Your task to perform on an android device: Show me popular games on the Play Store Image 0: 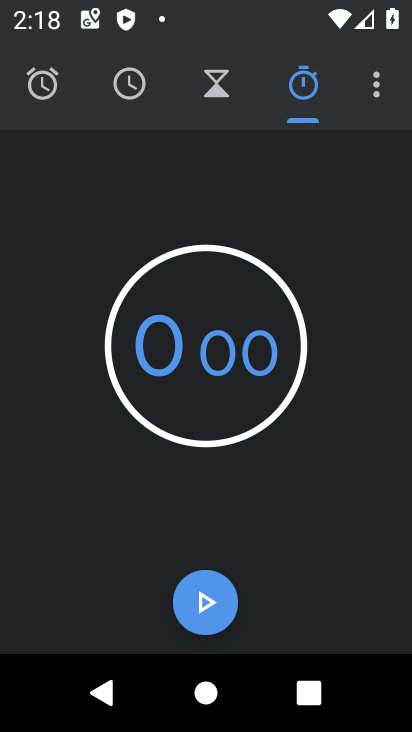
Step 0: press back button
Your task to perform on an android device: Show me popular games on the Play Store Image 1: 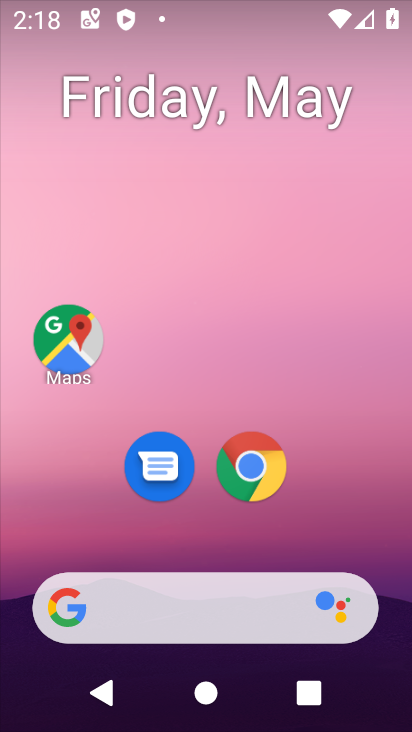
Step 1: drag from (186, 554) to (311, 0)
Your task to perform on an android device: Show me popular games on the Play Store Image 2: 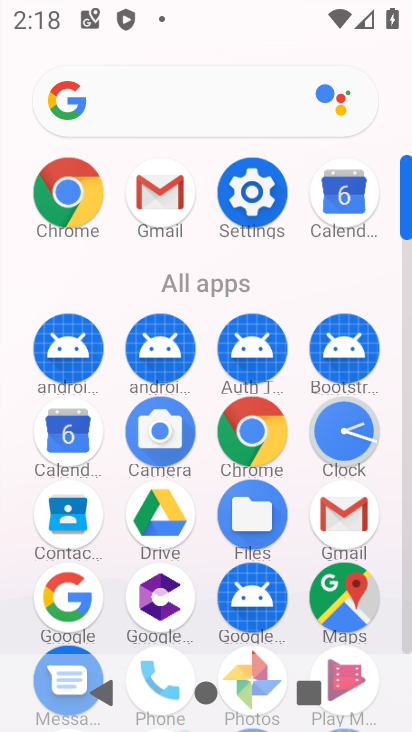
Step 2: drag from (156, 590) to (298, 147)
Your task to perform on an android device: Show me popular games on the Play Store Image 3: 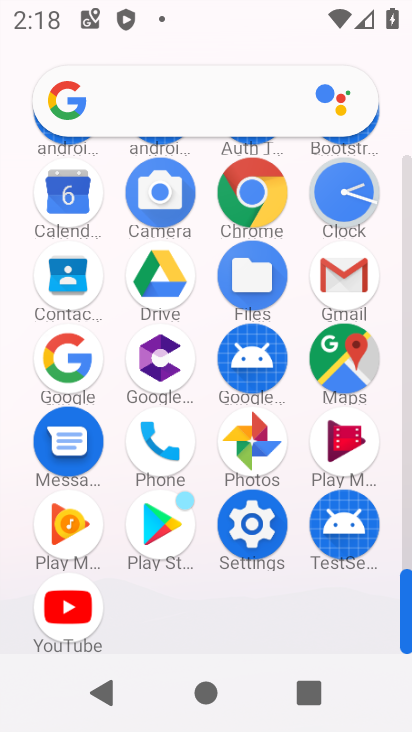
Step 3: click (163, 532)
Your task to perform on an android device: Show me popular games on the Play Store Image 4: 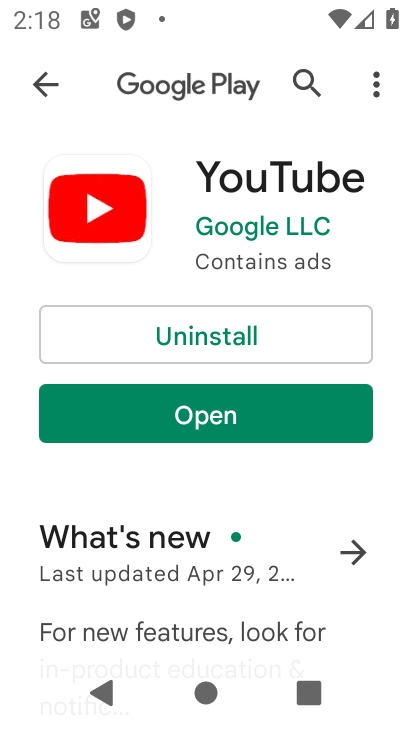
Step 4: click (35, 84)
Your task to perform on an android device: Show me popular games on the Play Store Image 5: 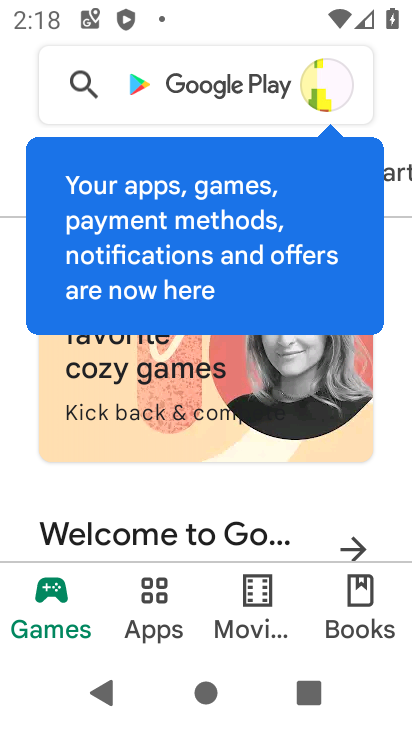
Step 5: click (66, 623)
Your task to perform on an android device: Show me popular games on the Play Store Image 6: 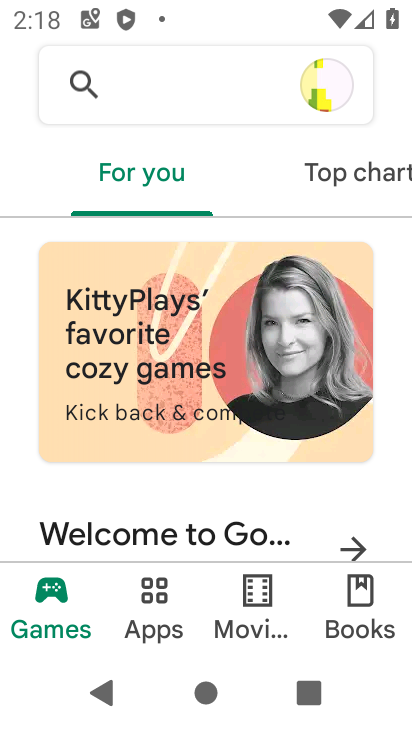
Step 6: drag from (177, 517) to (293, 68)
Your task to perform on an android device: Show me popular games on the Play Store Image 7: 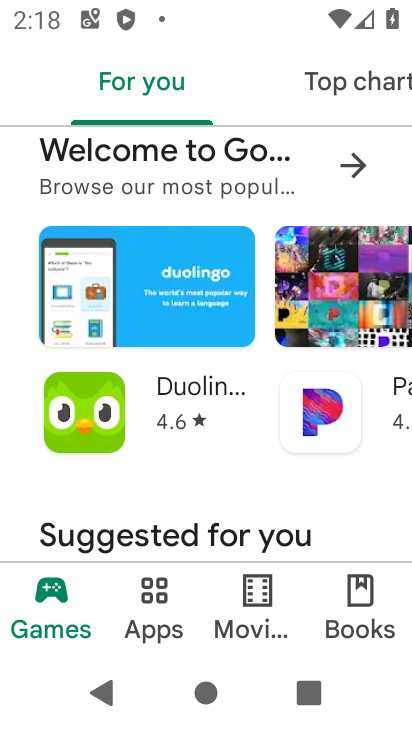
Step 7: drag from (178, 531) to (293, 73)
Your task to perform on an android device: Show me popular games on the Play Store Image 8: 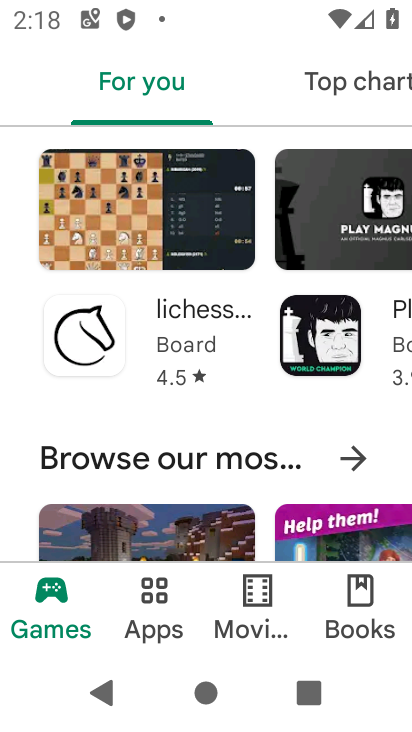
Step 8: drag from (235, 248) to (166, 569)
Your task to perform on an android device: Show me popular games on the Play Store Image 9: 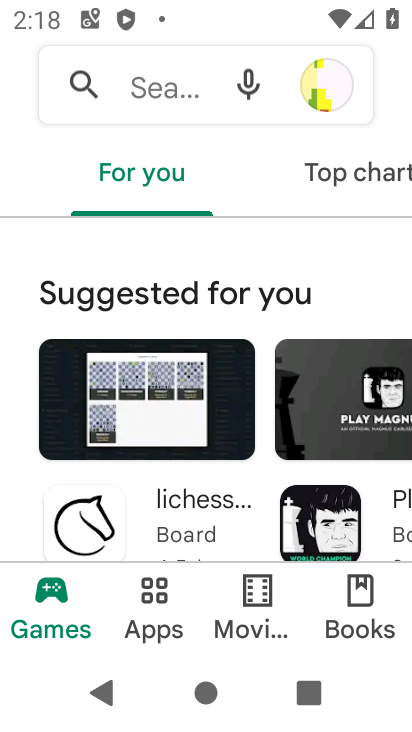
Step 9: drag from (153, 493) to (246, 84)
Your task to perform on an android device: Show me popular games on the Play Store Image 10: 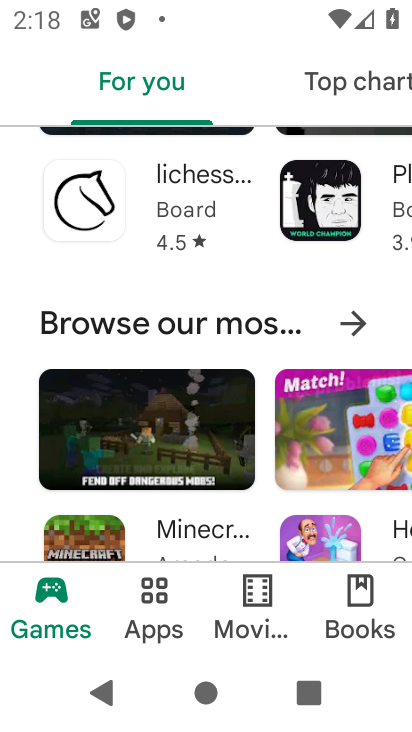
Step 10: drag from (218, 497) to (278, 37)
Your task to perform on an android device: Show me popular games on the Play Store Image 11: 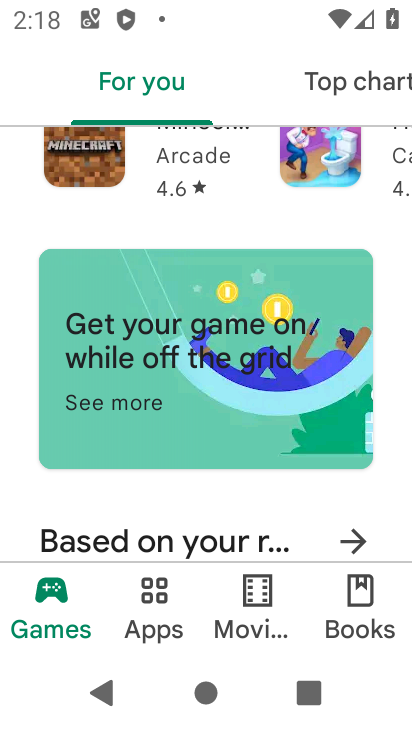
Step 11: drag from (156, 510) to (199, 89)
Your task to perform on an android device: Show me popular games on the Play Store Image 12: 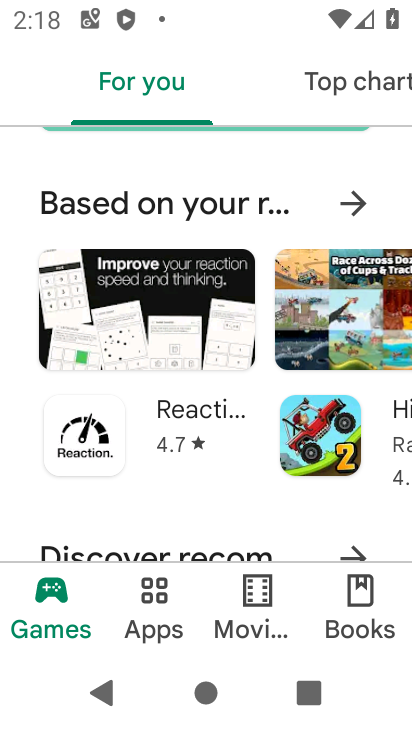
Step 12: drag from (182, 473) to (262, 130)
Your task to perform on an android device: Show me popular games on the Play Store Image 13: 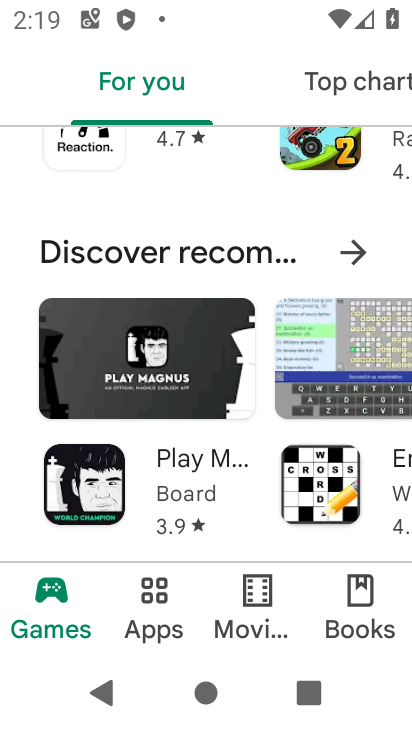
Step 13: drag from (155, 516) to (309, 61)
Your task to perform on an android device: Show me popular games on the Play Store Image 14: 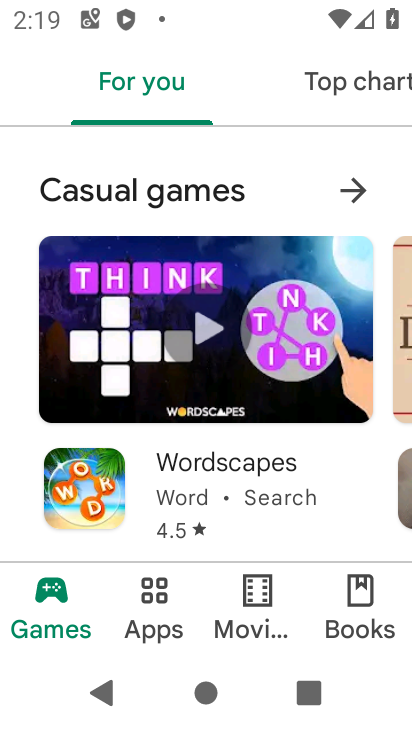
Step 14: drag from (221, 497) to (374, 3)
Your task to perform on an android device: Show me popular games on the Play Store Image 15: 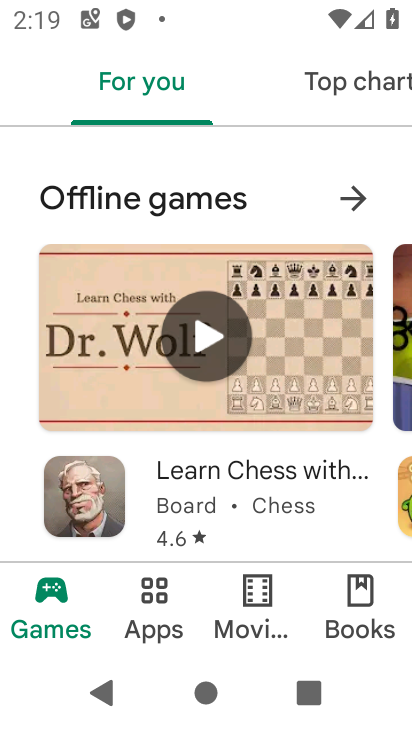
Step 15: drag from (242, 462) to (329, 73)
Your task to perform on an android device: Show me popular games on the Play Store Image 16: 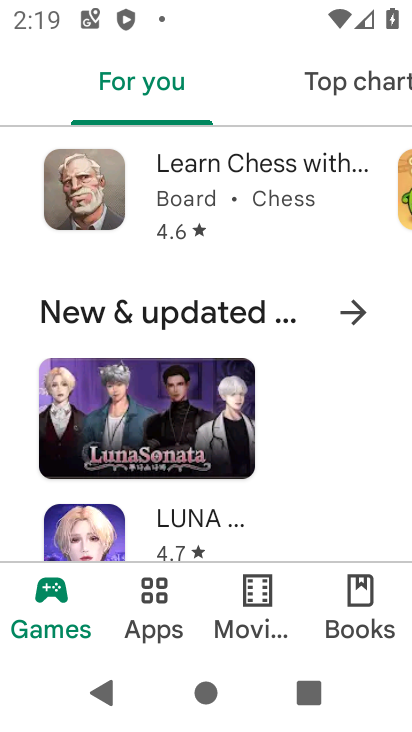
Step 16: drag from (280, 244) to (153, 581)
Your task to perform on an android device: Show me popular games on the Play Store Image 17: 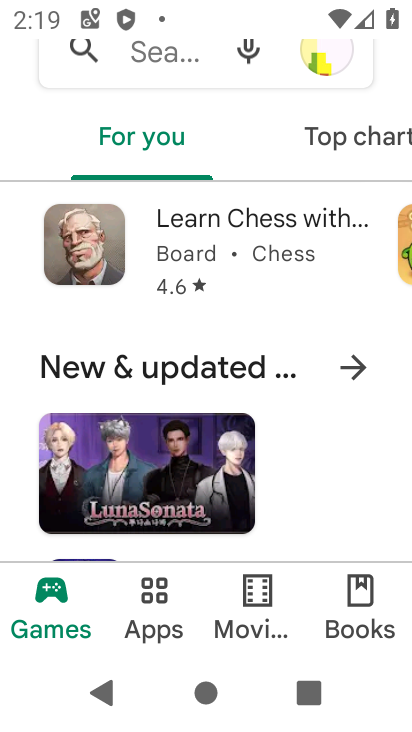
Step 17: drag from (217, 240) to (167, 611)
Your task to perform on an android device: Show me popular games on the Play Store Image 18: 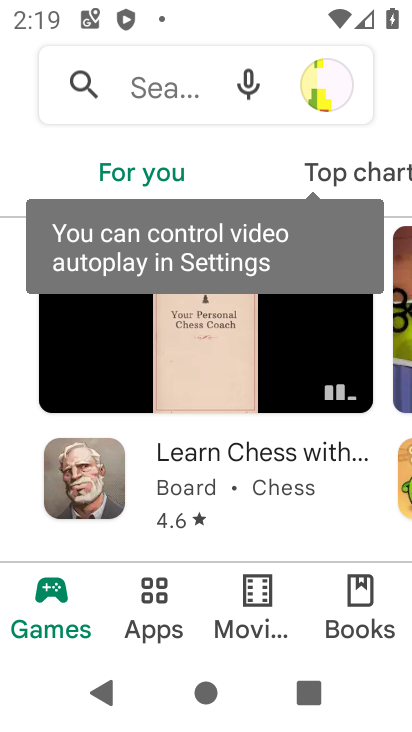
Step 18: drag from (205, 365) to (130, 656)
Your task to perform on an android device: Show me popular games on the Play Store Image 19: 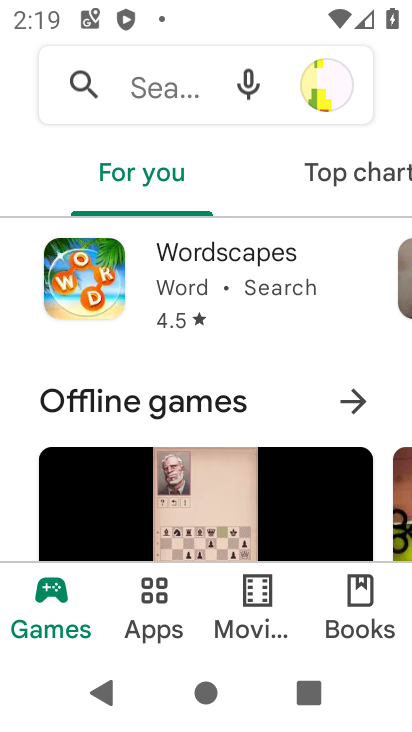
Step 19: drag from (189, 346) to (131, 626)
Your task to perform on an android device: Show me popular games on the Play Store Image 20: 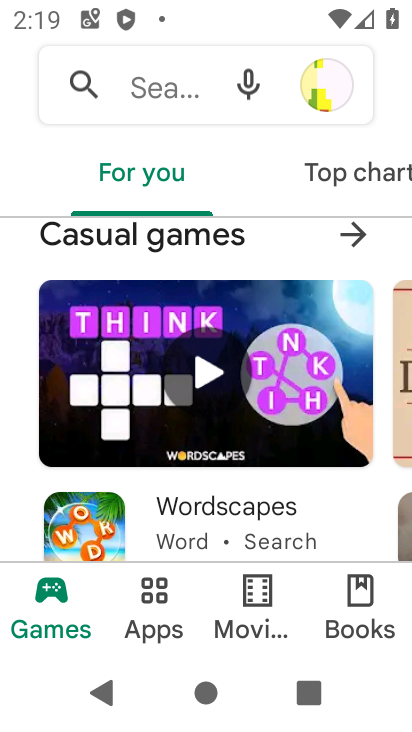
Step 20: drag from (187, 295) to (96, 571)
Your task to perform on an android device: Show me popular games on the Play Store Image 21: 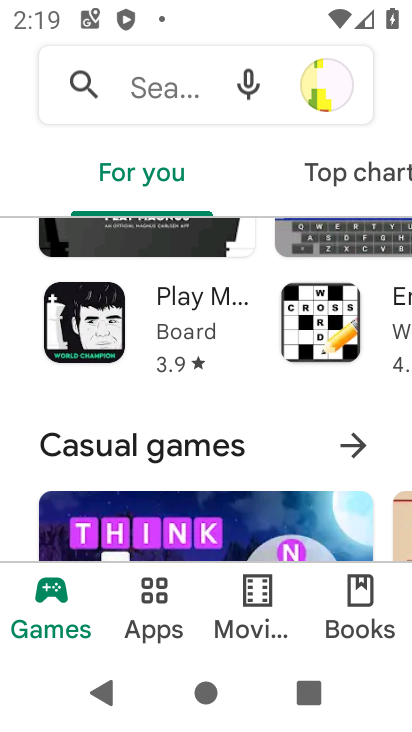
Step 21: drag from (205, 249) to (116, 597)
Your task to perform on an android device: Show me popular games on the Play Store Image 22: 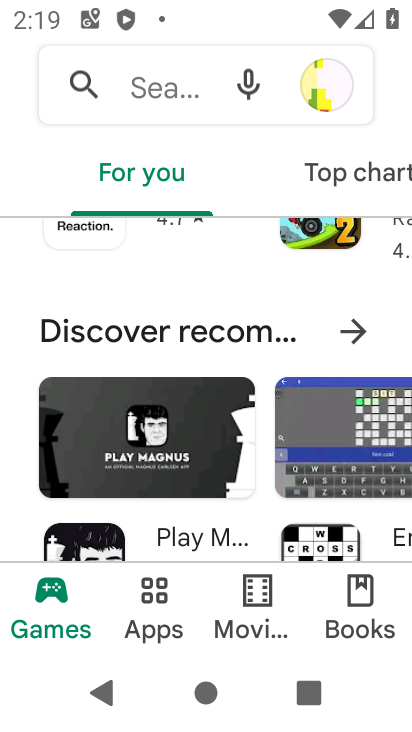
Step 22: drag from (148, 270) to (98, 534)
Your task to perform on an android device: Show me popular games on the Play Store Image 23: 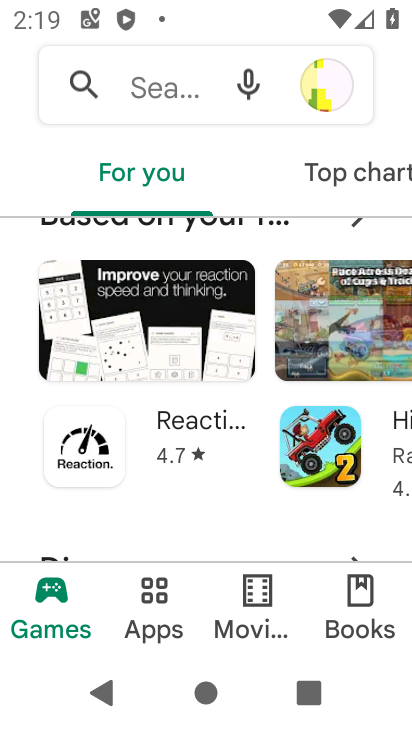
Step 23: drag from (150, 239) to (75, 561)
Your task to perform on an android device: Show me popular games on the Play Store Image 24: 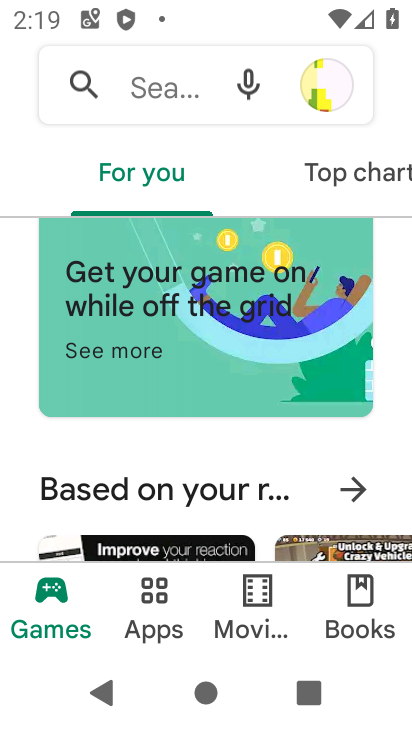
Step 24: drag from (138, 236) to (75, 584)
Your task to perform on an android device: Show me popular games on the Play Store Image 25: 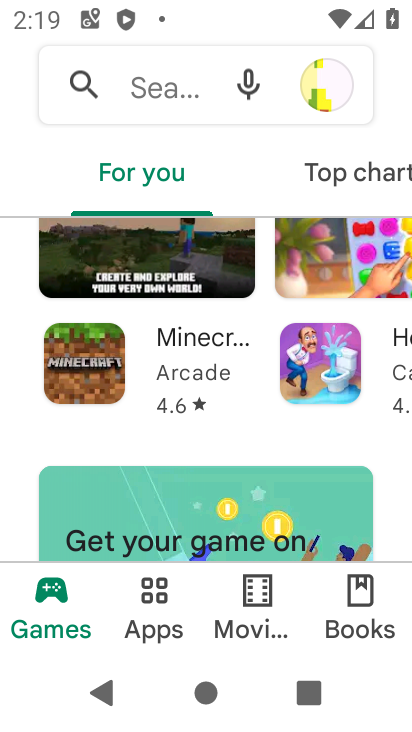
Step 25: drag from (219, 232) to (106, 610)
Your task to perform on an android device: Show me popular games on the Play Store Image 26: 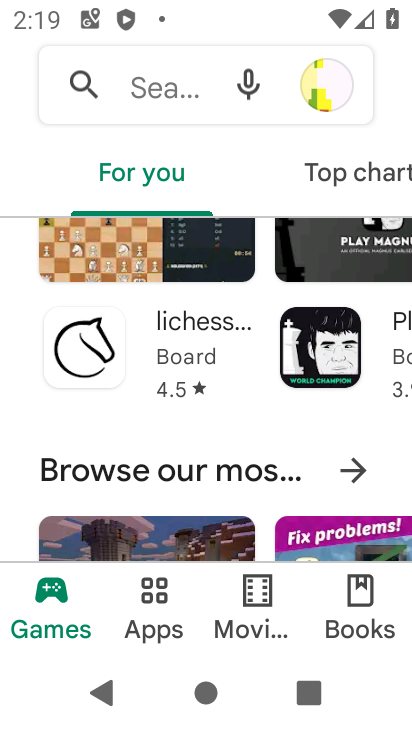
Step 26: drag from (164, 268) to (87, 559)
Your task to perform on an android device: Show me popular games on the Play Store Image 27: 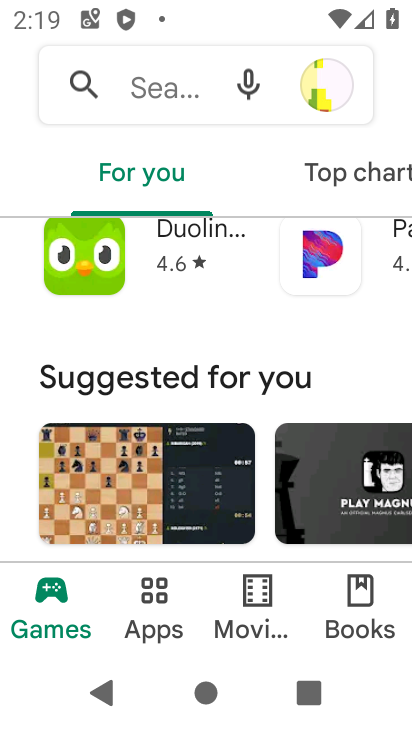
Step 27: drag from (201, 295) to (144, 587)
Your task to perform on an android device: Show me popular games on the Play Store Image 28: 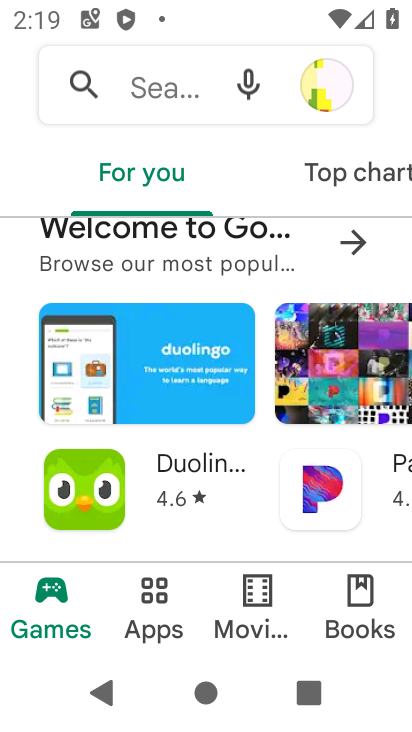
Step 28: drag from (168, 295) to (79, 637)
Your task to perform on an android device: Show me popular games on the Play Store Image 29: 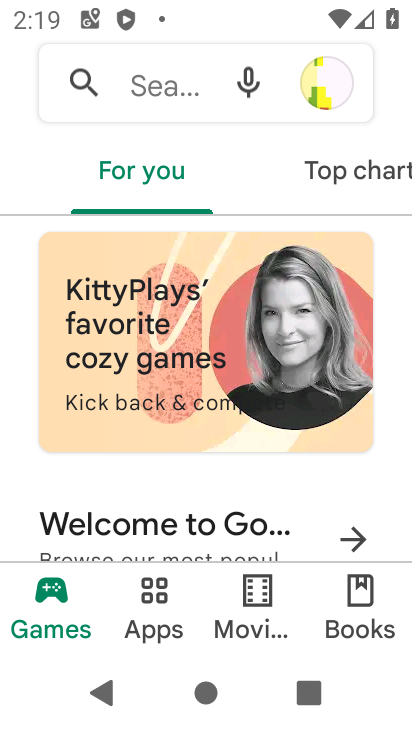
Step 29: drag from (178, 246) to (71, 596)
Your task to perform on an android device: Show me popular games on the Play Store Image 30: 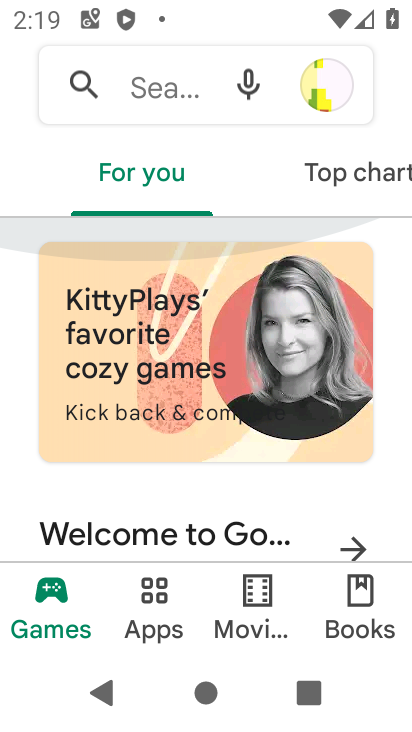
Step 30: drag from (126, 464) to (206, 109)
Your task to perform on an android device: Show me popular games on the Play Store Image 31: 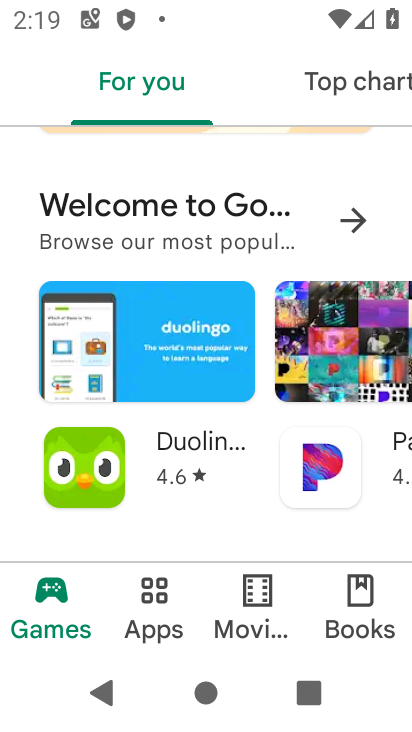
Step 31: drag from (207, 496) to (284, 65)
Your task to perform on an android device: Show me popular games on the Play Store Image 32: 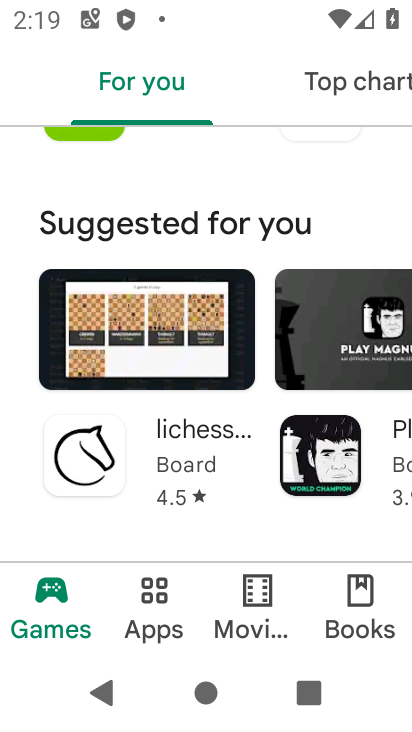
Step 32: drag from (203, 460) to (273, 111)
Your task to perform on an android device: Show me popular games on the Play Store Image 33: 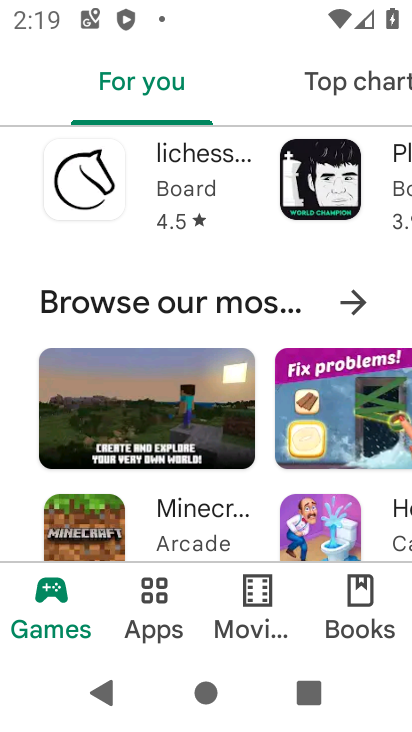
Step 33: click (195, 494)
Your task to perform on an android device: Show me popular games on the Play Store Image 34: 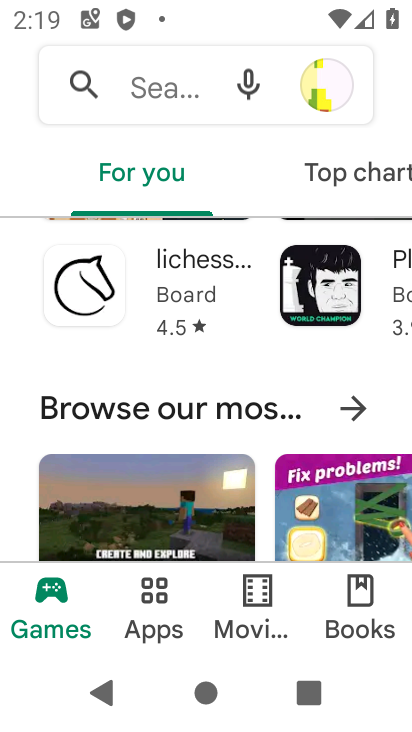
Step 34: click (253, 413)
Your task to perform on an android device: Show me popular games on the Play Store Image 35: 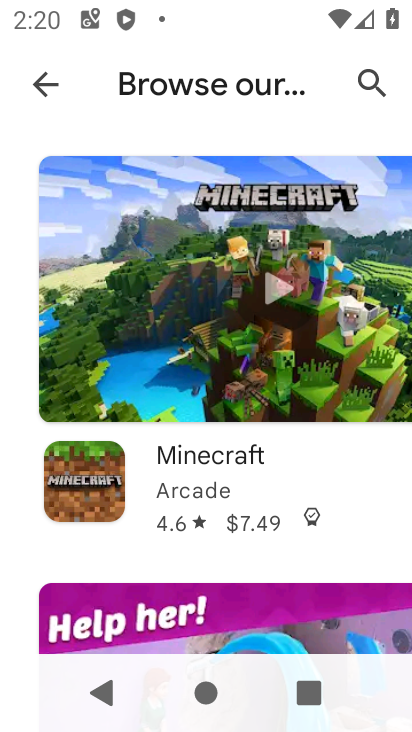
Step 35: task complete